Your task to perform on an android device: set the stopwatch Image 0: 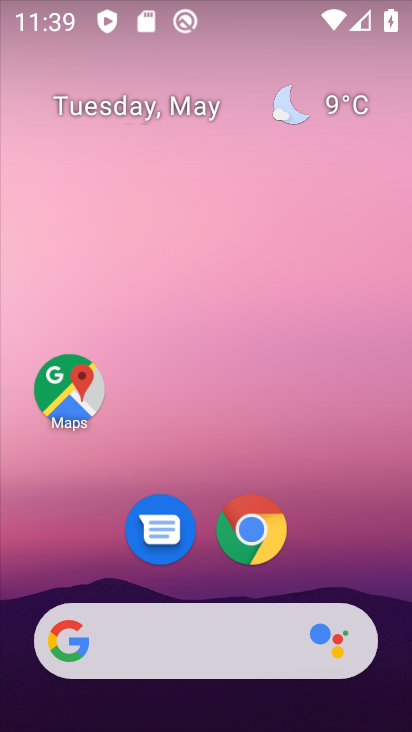
Step 0: drag from (140, 605) to (244, 65)
Your task to perform on an android device: set the stopwatch Image 1: 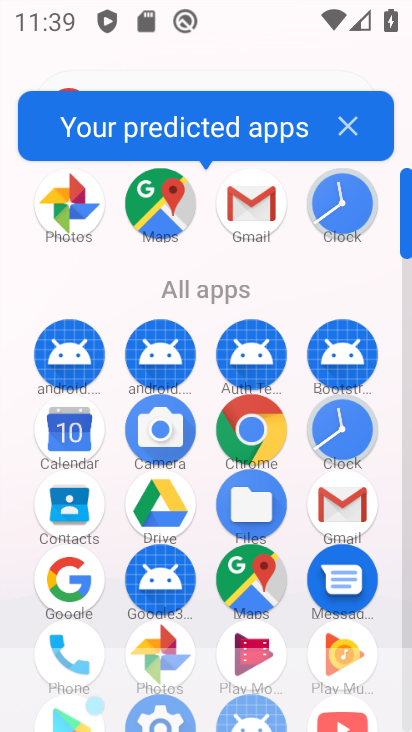
Step 1: click (357, 430)
Your task to perform on an android device: set the stopwatch Image 2: 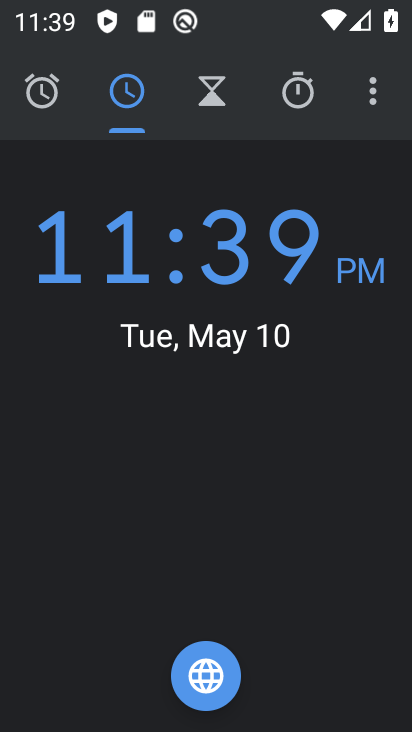
Step 2: click (299, 105)
Your task to perform on an android device: set the stopwatch Image 3: 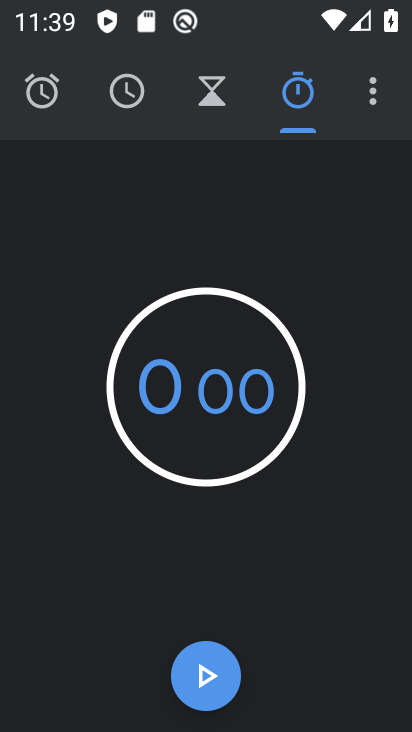
Step 3: click (216, 668)
Your task to perform on an android device: set the stopwatch Image 4: 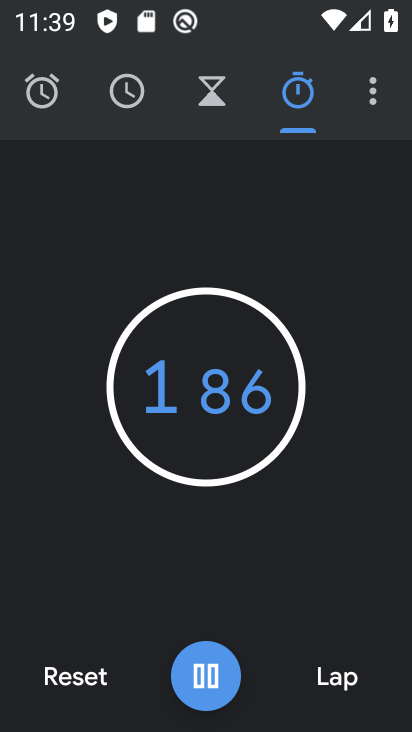
Step 4: task complete